Your task to perform on an android device: allow notifications from all sites in the chrome app Image 0: 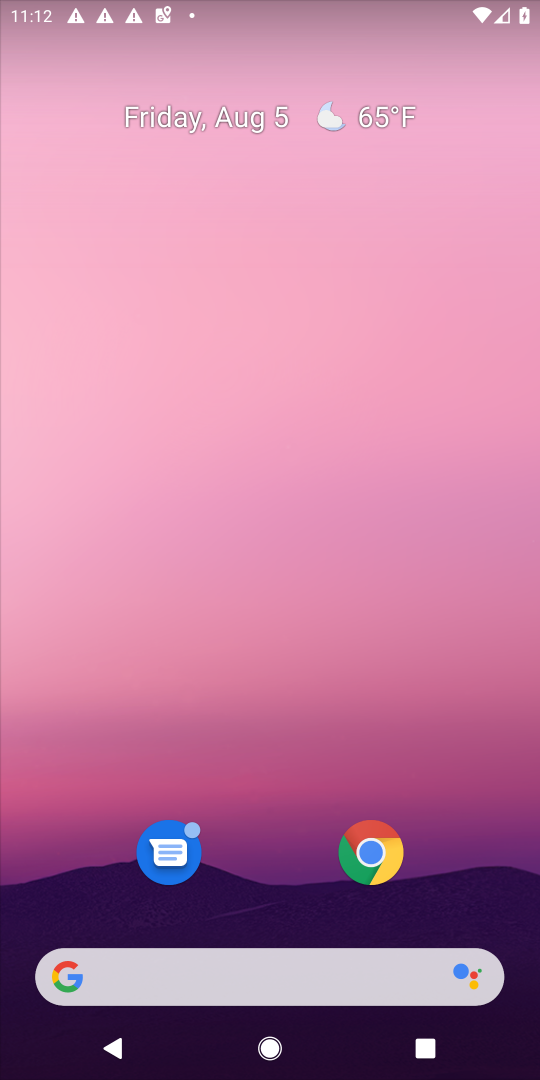
Step 0: drag from (320, 1009) to (258, 200)
Your task to perform on an android device: allow notifications from all sites in the chrome app Image 1: 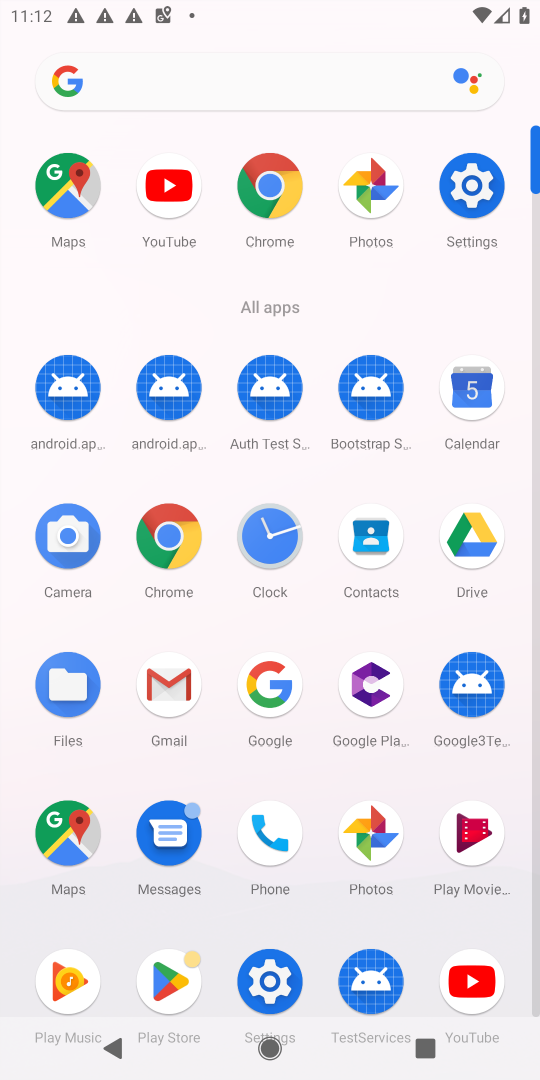
Step 1: click (272, 201)
Your task to perform on an android device: allow notifications from all sites in the chrome app Image 2: 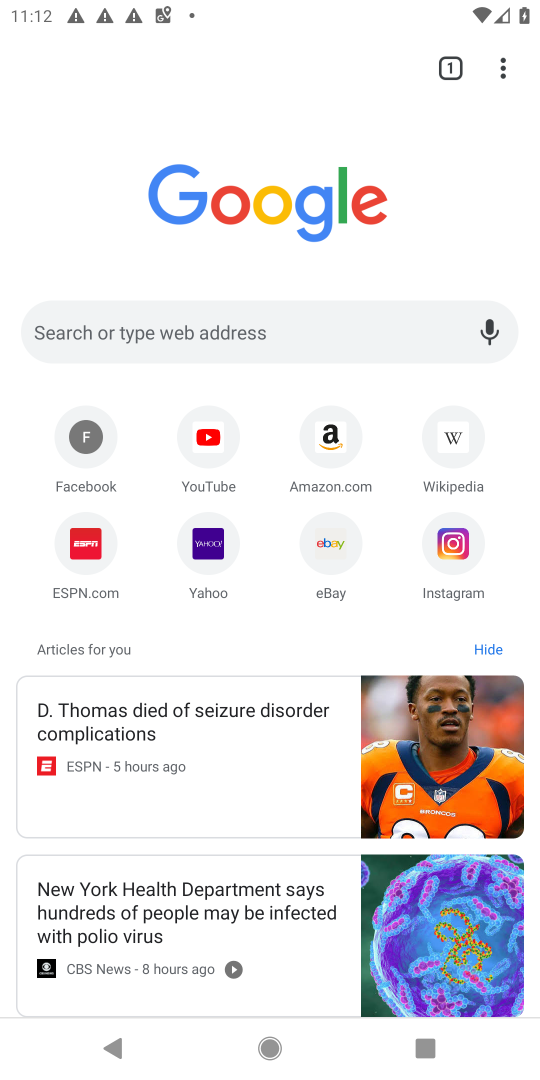
Step 2: click (521, 83)
Your task to perform on an android device: allow notifications from all sites in the chrome app Image 3: 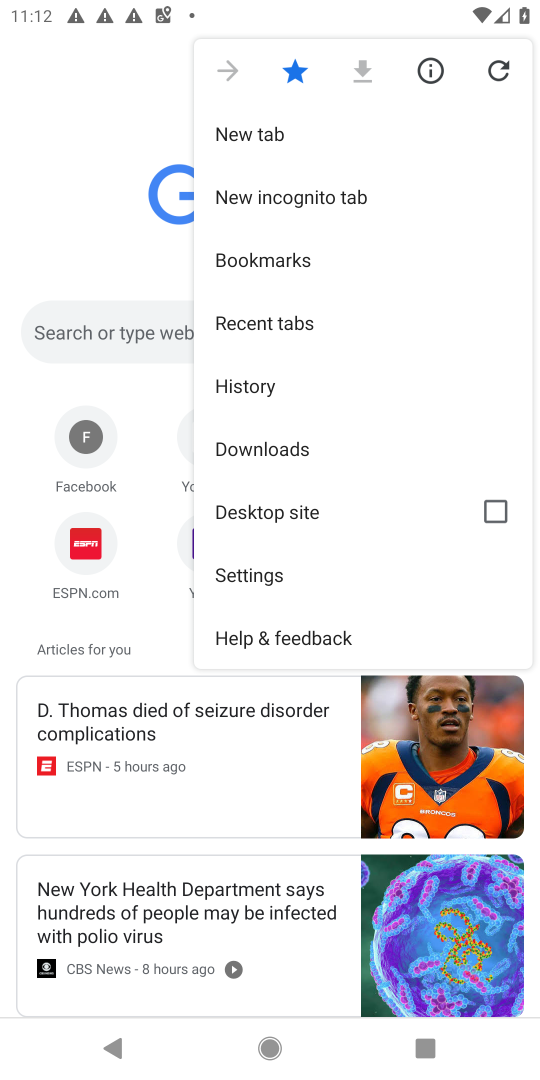
Step 3: click (242, 566)
Your task to perform on an android device: allow notifications from all sites in the chrome app Image 4: 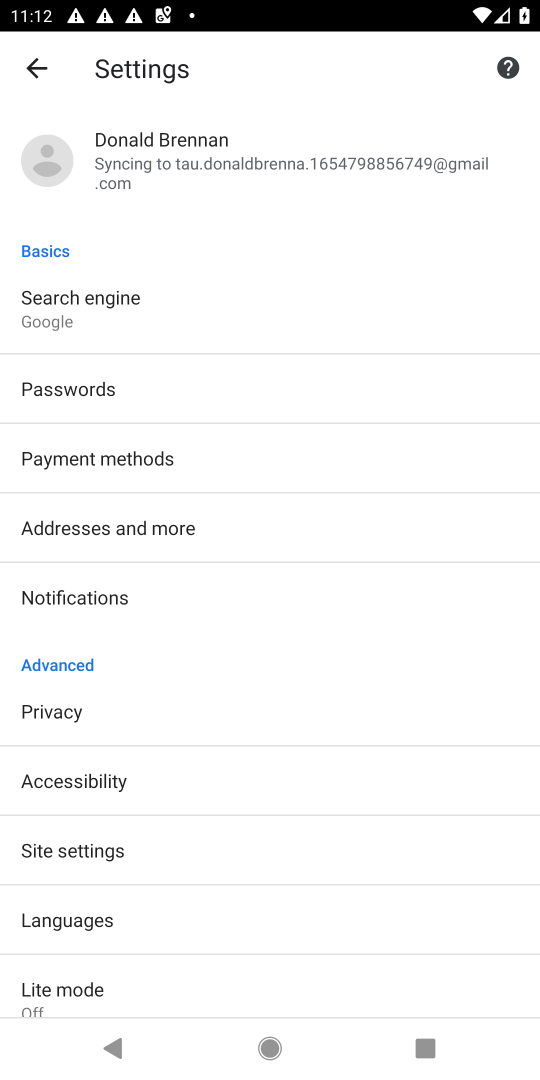
Step 4: click (119, 845)
Your task to perform on an android device: allow notifications from all sites in the chrome app Image 5: 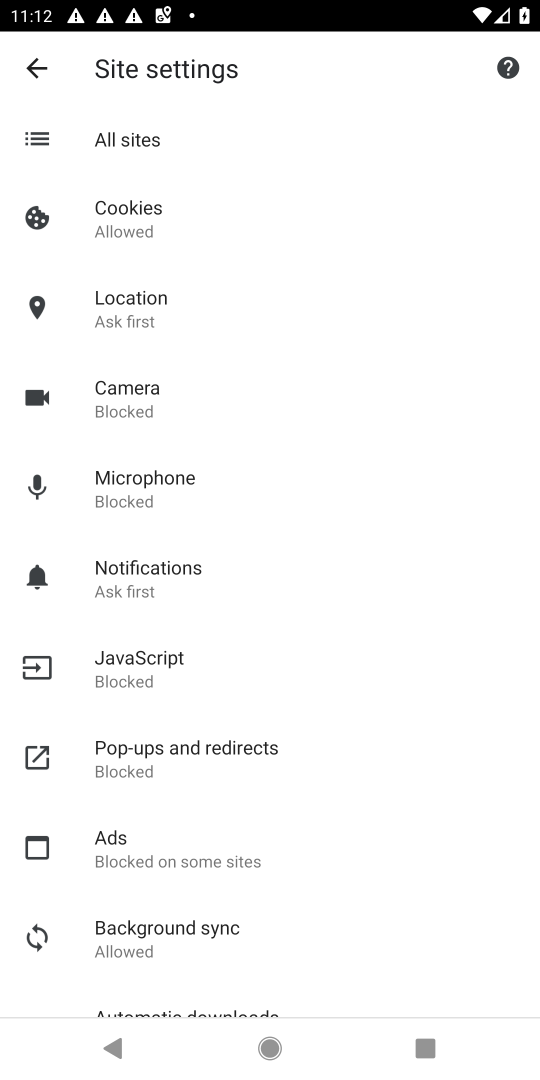
Step 5: click (185, 595)
Your task to perform on an android device: allow notifications from all sites in the chrome app Image 6: 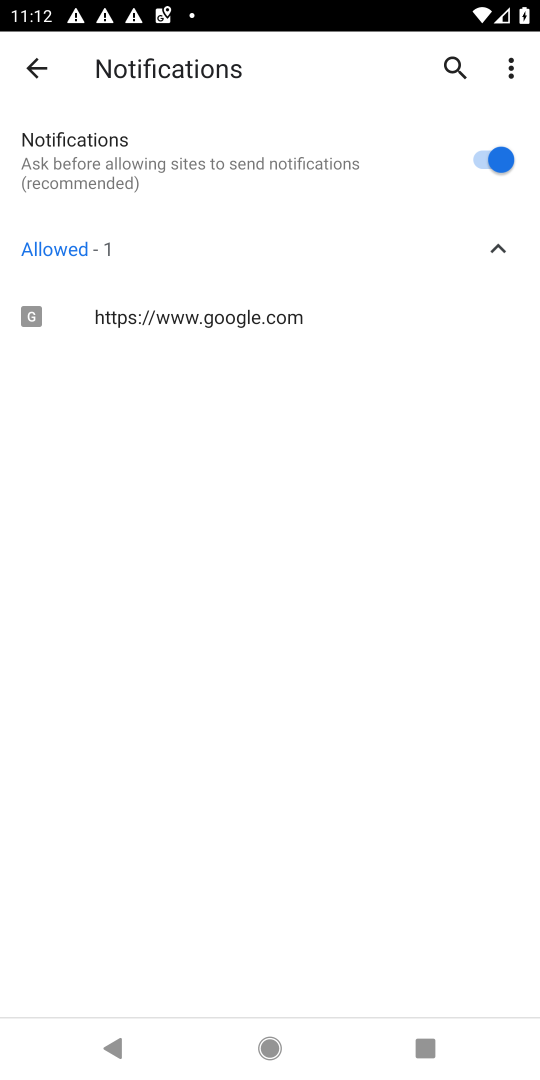
Step 6: click (499, 151)
Your task to perform on an android device: allow notifications from all sites in the chrome app Image 7: 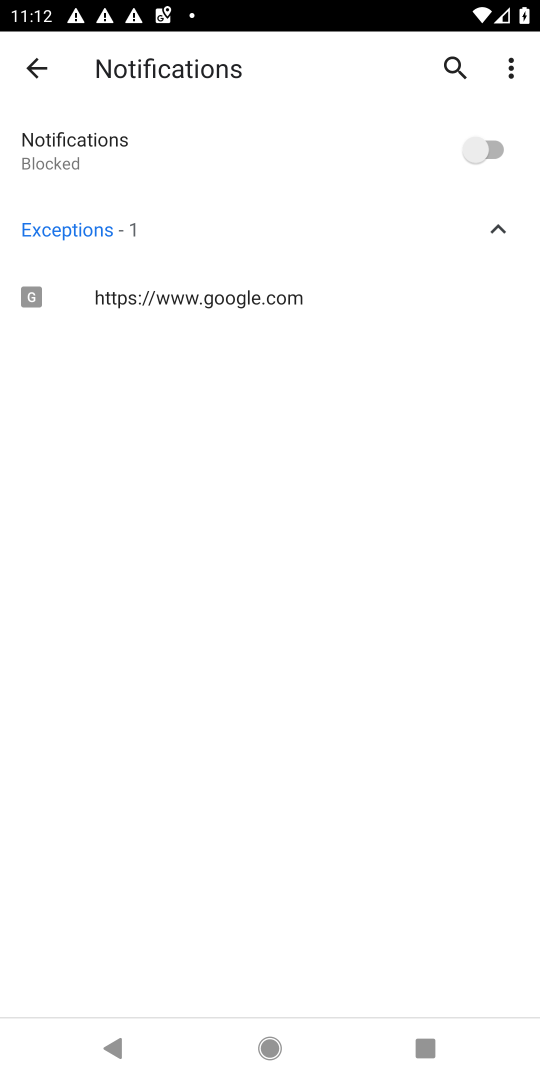
Step 7: click (499, 151)
Your task to perform on an android device: allow notifications from all sites in the chrome app Image 8: 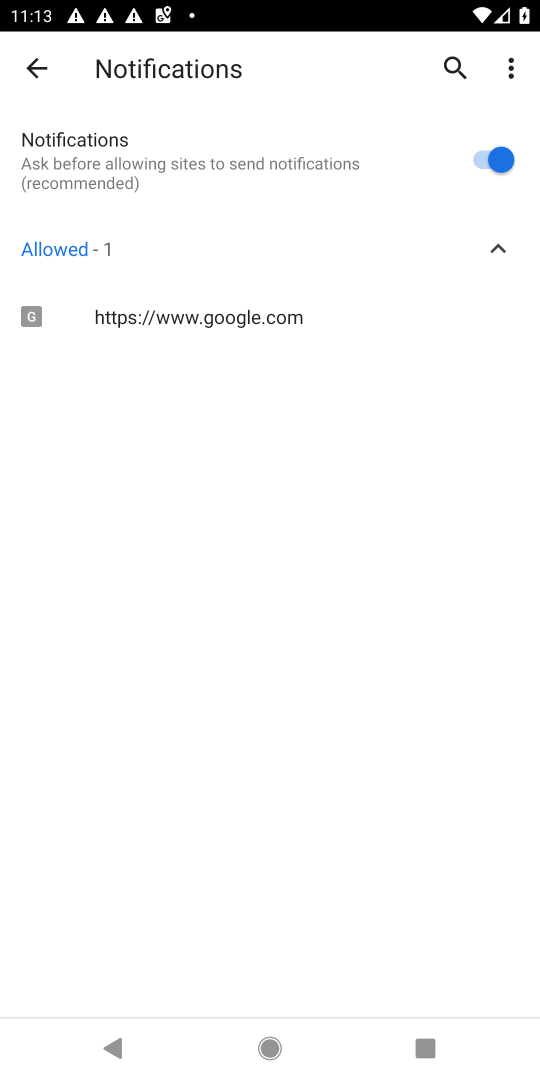
Step 8: task complete